Your task to perform on an android device: Go to Reddit.com Image 0: 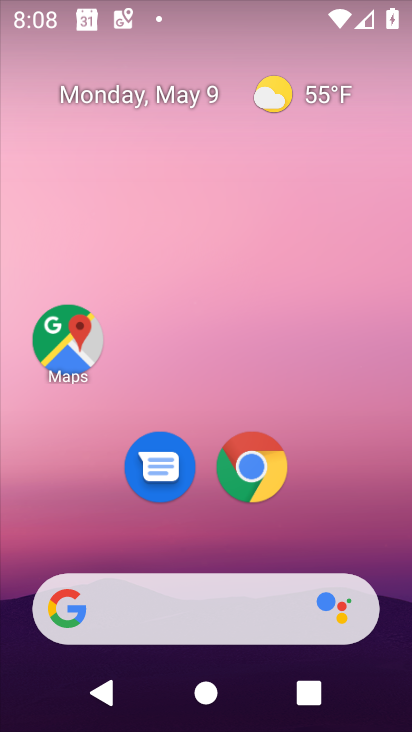
Step 0: click (249, 478)
Your task to perform on an android device: Go to Reddit.com Image 1: 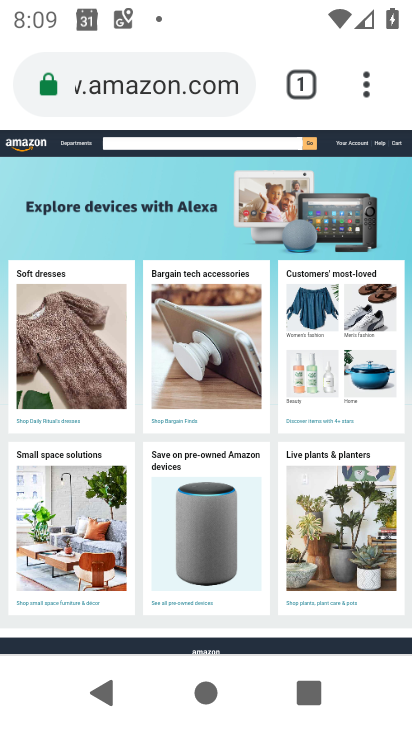
Step 1: click (137, 92)
Your task to perform on an android device: Go to Reddit.com Image 2: 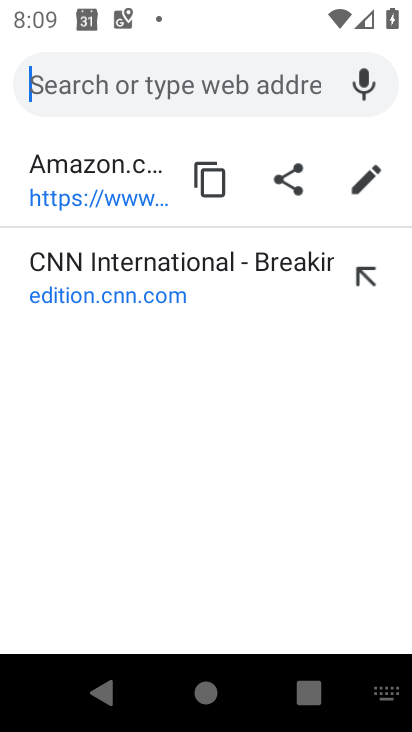
Step 2: type "reddit.com"
Your task to perform on an android device: Go to Reddit.com Image 3: 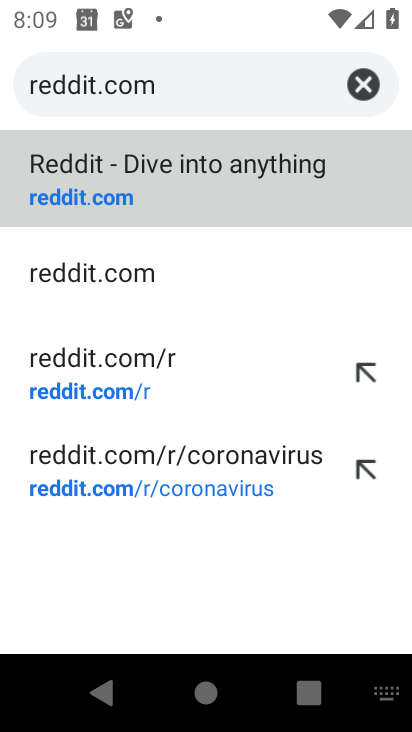
Step 3: click (74, 279)
Your task to perform on an android device: Go to Reddit.com Image 4: 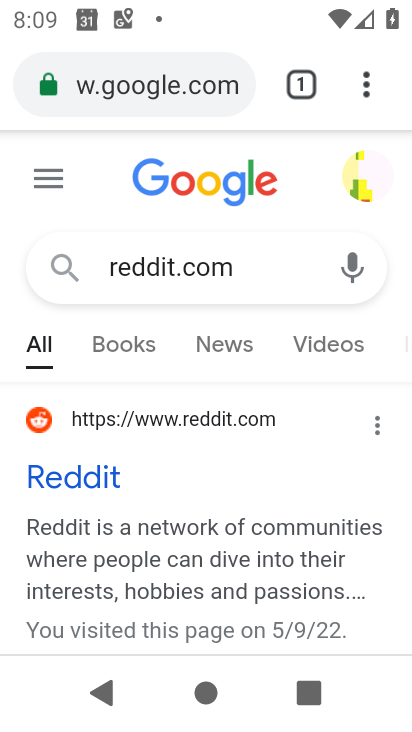
Step 4: click (92, 479)
Your task to perform on an android device: Go to Reddit.com Image 5: 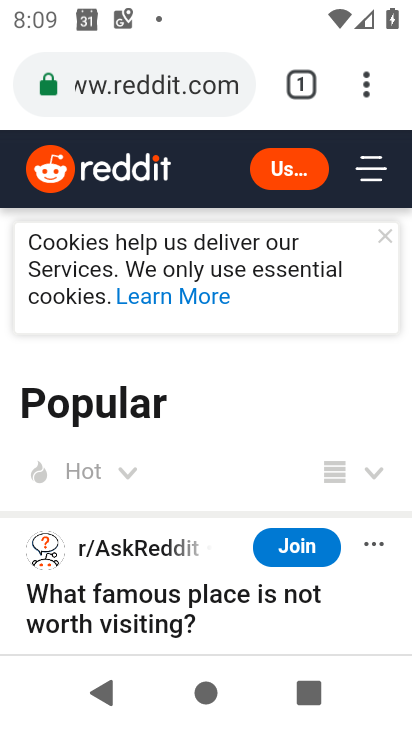
Step 5: task complete